Your task to perform on an android device: toggle translation in the chrome app Image 0: 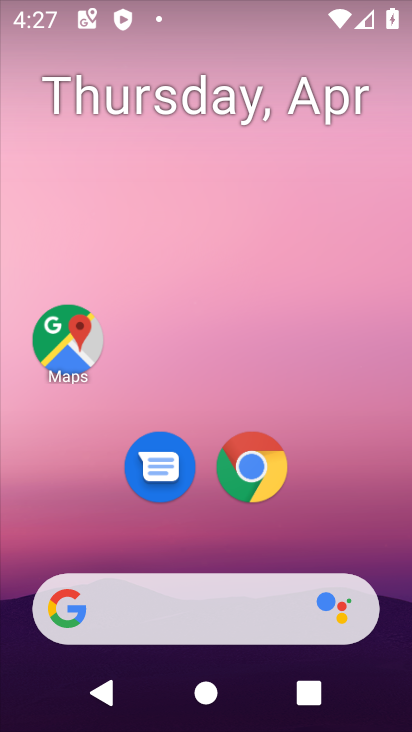
Step 0: click (255, 499)
Your task to perform on an android device: toggle translation in the chrome app Image 1: 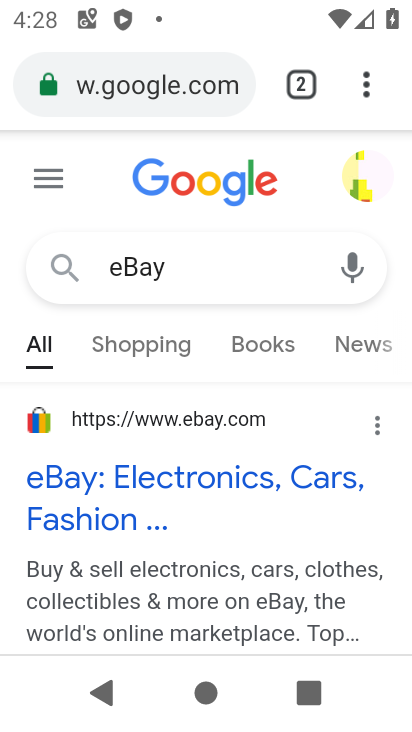
Step 1: click (374, 90)
Your task to perform on an android device: toggle translation in the chrome app Image 2: 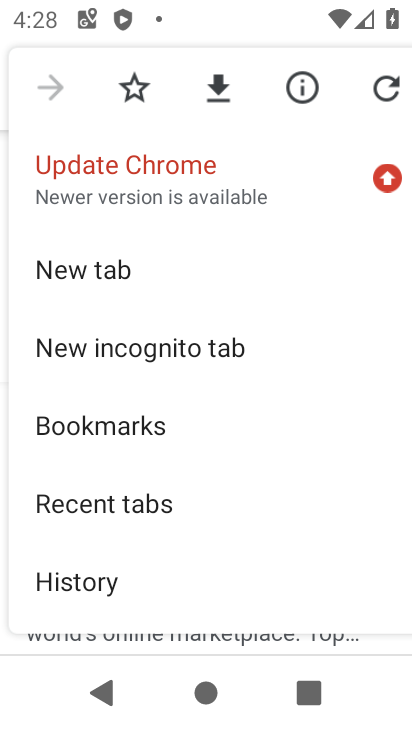
Step 2: drag from (182, 501) to (213, 123)
Your task to perform on an android device: toggle translation in the chrome app Image 3: 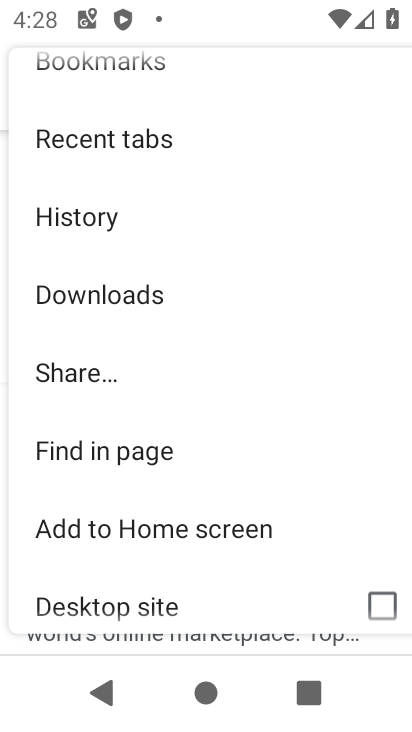
Step 3: drag from (110, 529) to (177, 160)
Your task to perform on an android device: toggle translation in the chrome app Image 4: 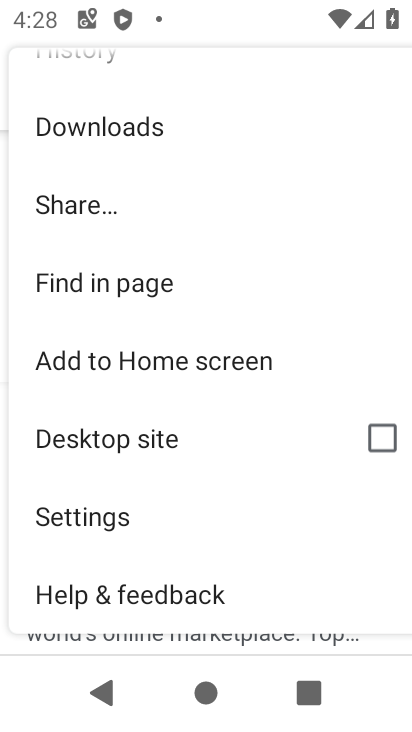
Step 4: click (99, 502)
Your task to perform on an android device: toggle translation in the chrome app Image 5: 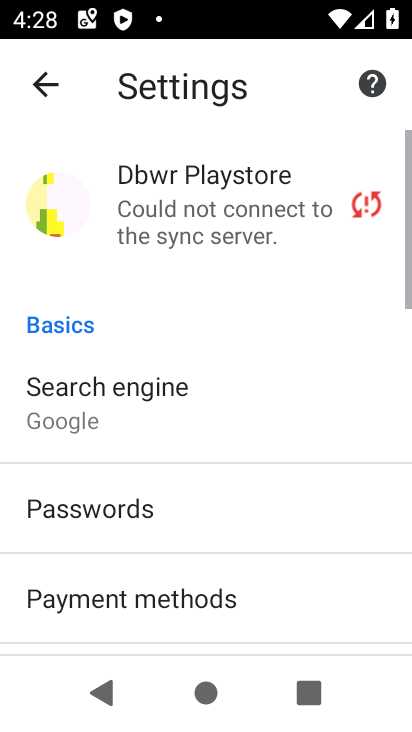
Step 5: drag from (99, 533) to (158, 211)
Your task to perform on an android device: toggle translation in the chrome app Image 6: 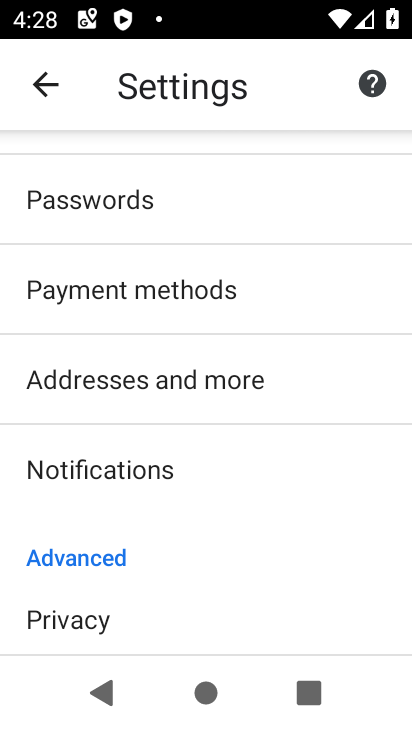
Step 6: drag from (111, 526) to (204, 210)
Your task to perform on an android device: toggle translation in the chrome app Image 7: 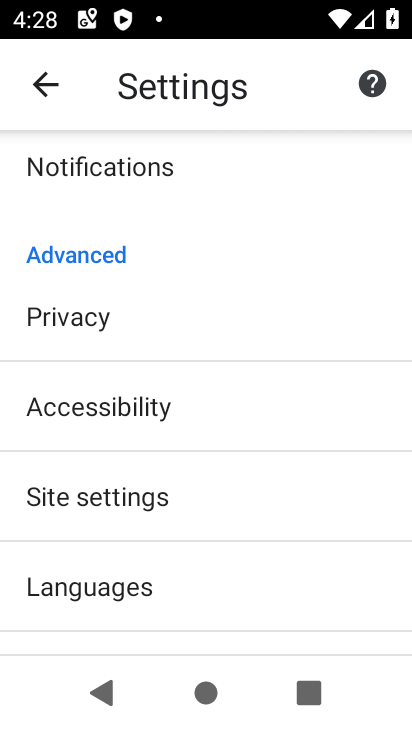
Step 7: drag from (91, 574) to (128, 321)
Your task to perform on an android device: toggle translation in the chrome app Image 8: 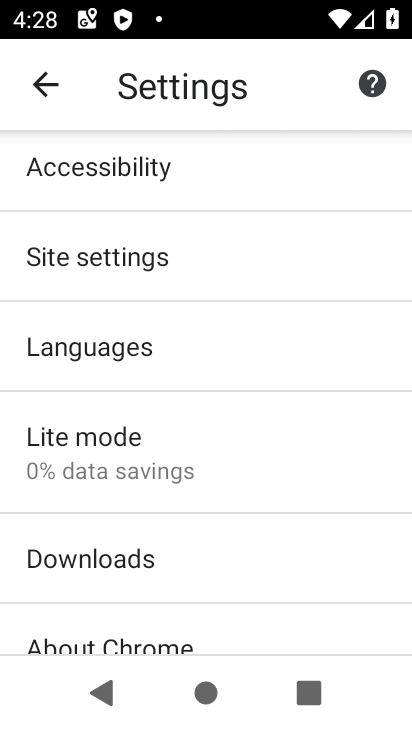
Step 8: click (122, 352)
Your task to perform on an android device: toggle translation in the chrome app Image 9: 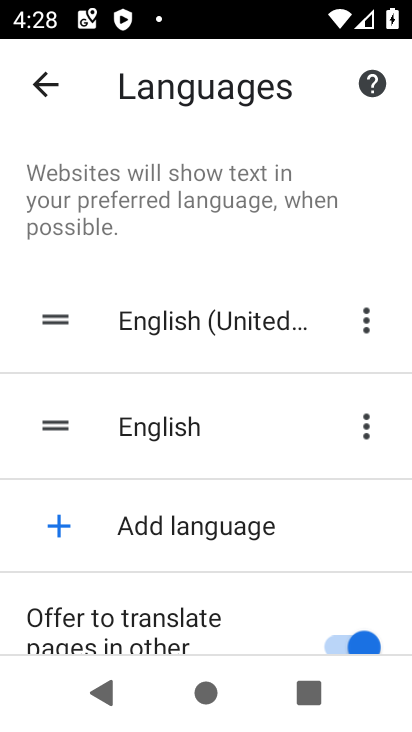
Step 9: click (323, 627)
Your task to perform on an android device: toggle translation in the chrome app Image 10: 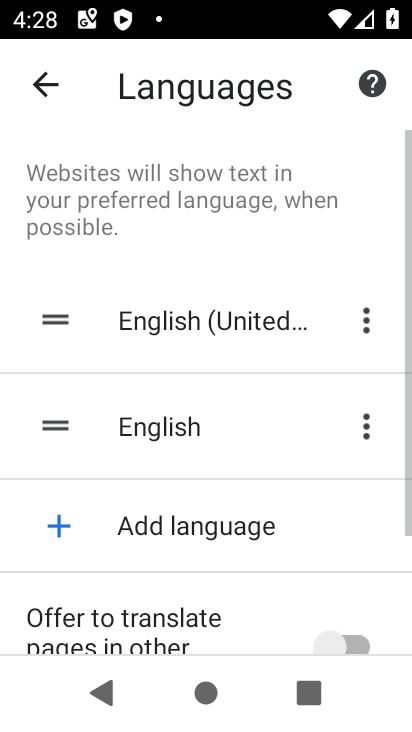
Step 10: task complete